Your task to perform on an android device: Open Google Maps Image 0: 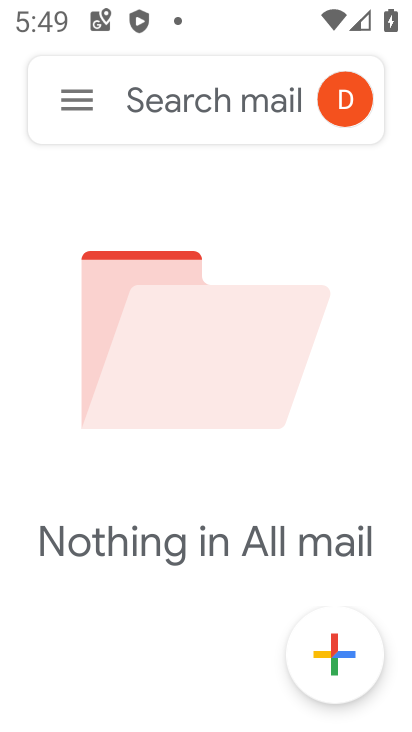
Step 0: press home button
Your task to perform on an android device: Open Google Maps Image 1: 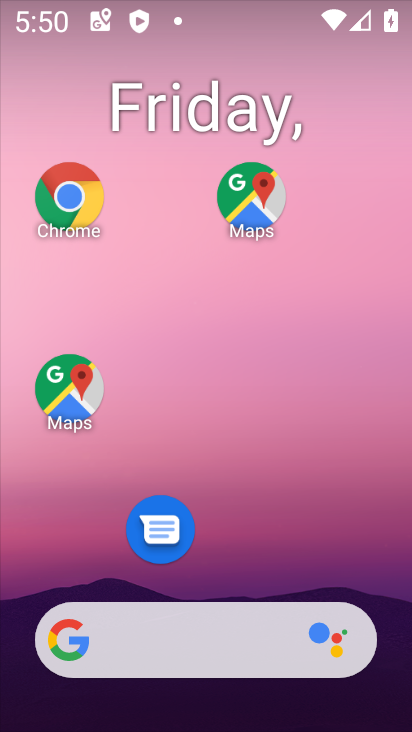
Step 1: click (65, 401)
Your task to perform on an android device: Open Google Maps Image 2: 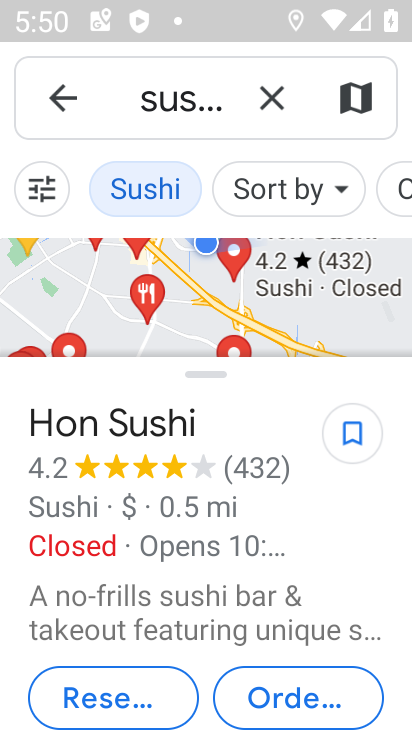
Step 2: task complete